Your task to perform on an android device: turn off picture-in-picture Image 0: 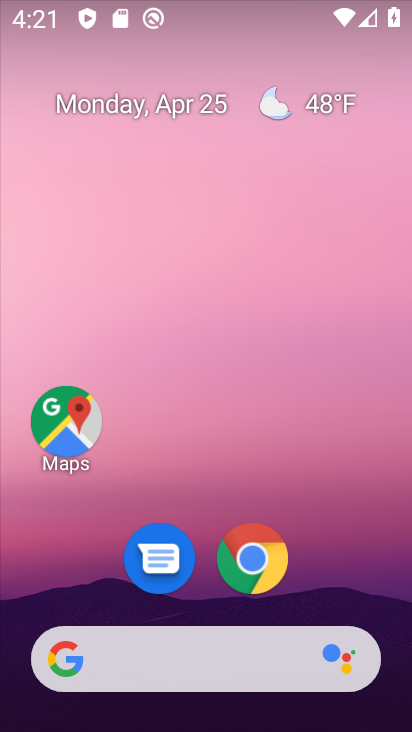
Step 0: drag from (319, 445) to (314, 18)
Your task to perform on an android device: turn off picture-in-picture Image 1: 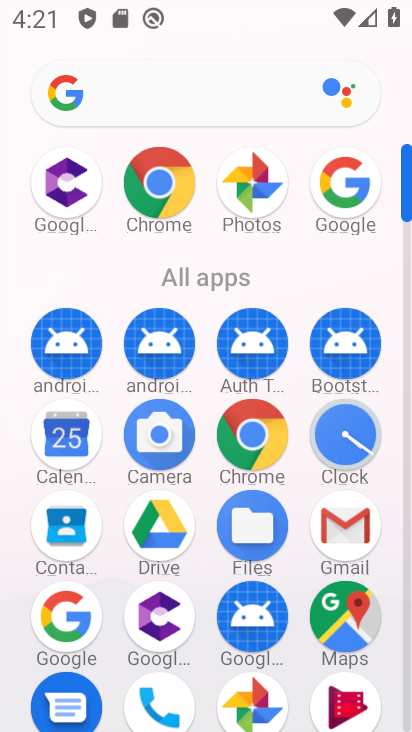
Step 1: click (140, 172)
Your task to perform on an android device: turn off picture-in-picture Image 2: 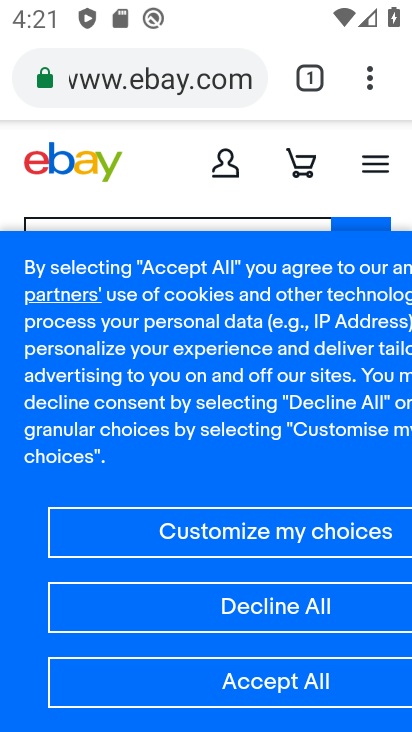
Step 2: press home button
Your task to perform on an android device: turn off picture-in-picture Image 3: 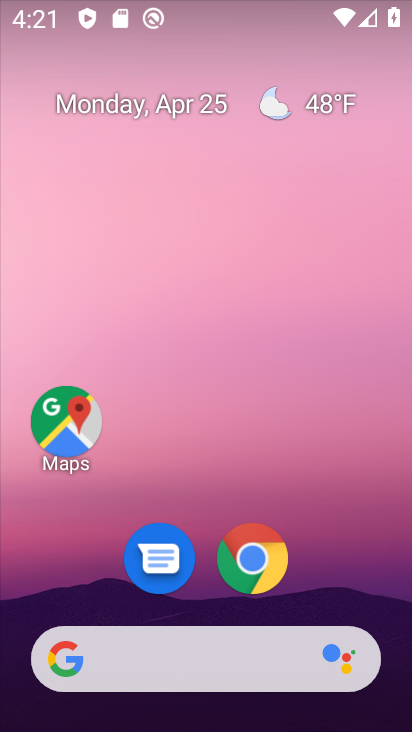
Step 3: drag from (258, 541) to (263, 315)
Your task to perform on an android device: turn off picture-in-picture Image 4: 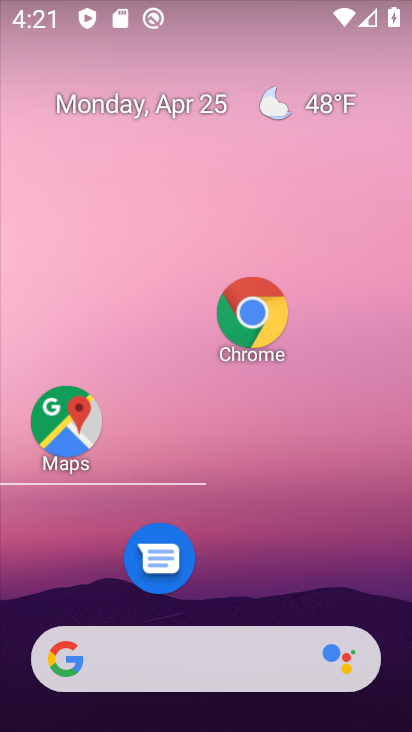
Step 4: click (263, 315)
Your task to perform on an android device: turn off picture-in-picture Image 5: 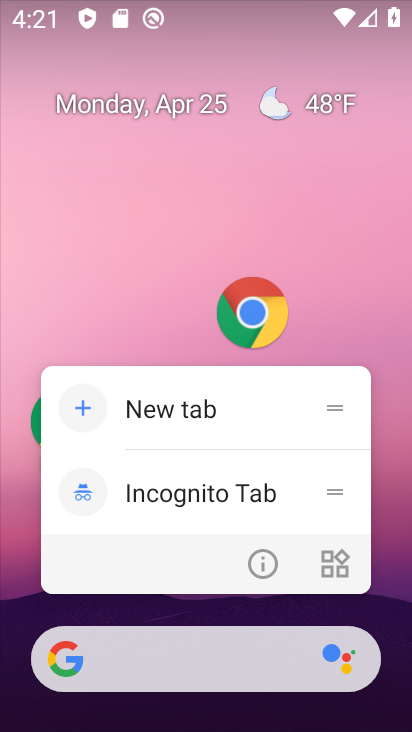
Step 5: click (262, 315)
Your task to perform on an android device: turn off picture-in-picture Image 6: 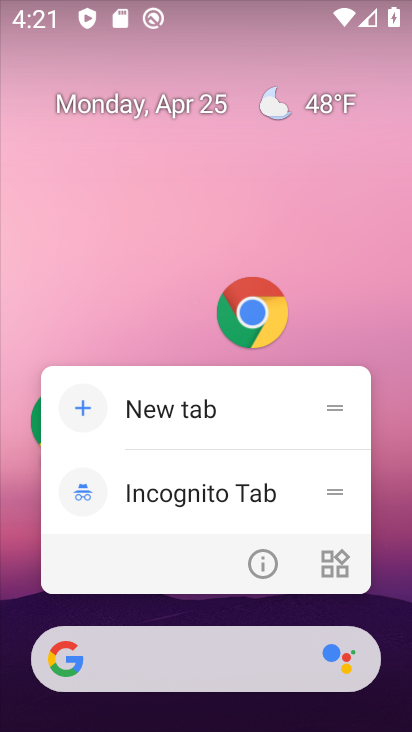
Step 6: click (269, 556)
Your task to perform on an android device: turn off picture-in-picture Image 7: 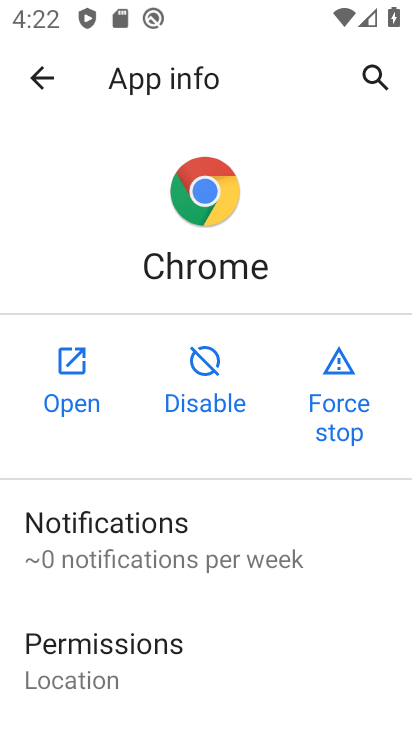
Step 7: drag from (170, 634) to (207, 142)
Your task to perform on an android device: turn off picture-in-picture Image 8: 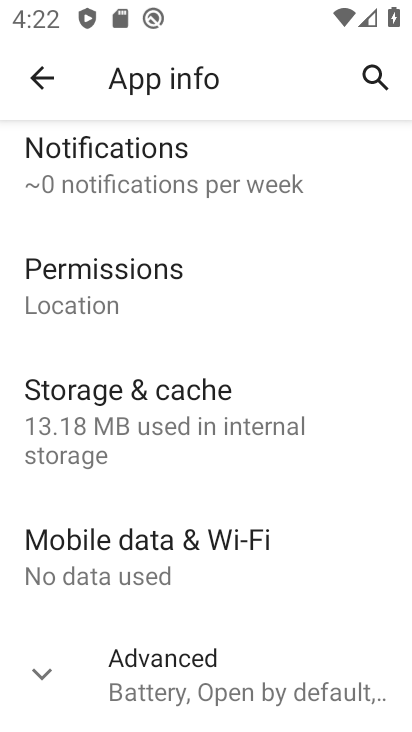
Step 8: drag from (247, 629) to (288, 220)
Your task to perform on an android device: turn off picture-in-picture Image 9: 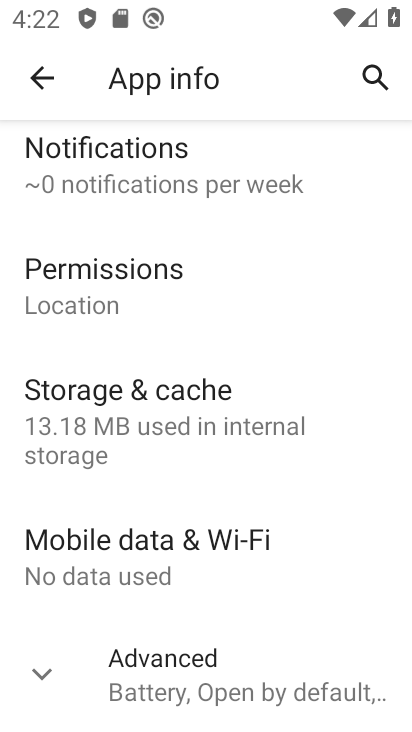
Step 9: click (205, 671)
Your task to perform on an android device: turn off picture-in-picture Image 10: 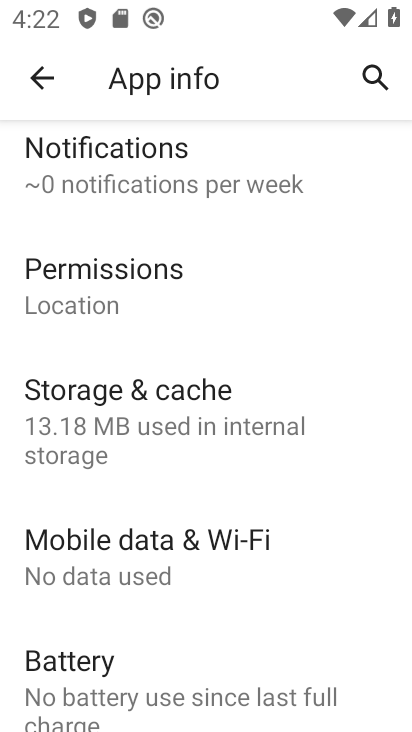
Step 10: drag from (205, 671) to (210, 199)
Your task to perform on an android device: turn off picture-in-picture Image 11: 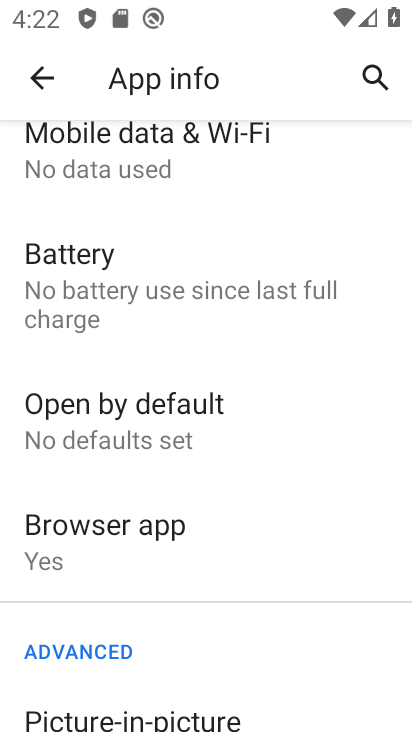
Step 11: drag from (247, 621) to (287, 148)
Your task to perform on an android device: turn off picture-in-picture Image 12: 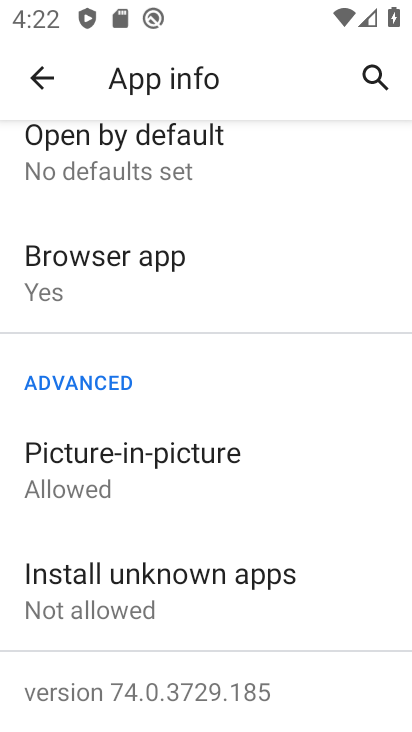
Step 12: click (167, 454)
Your task to perform on an android device: turn off picture-in-picture Image 13: 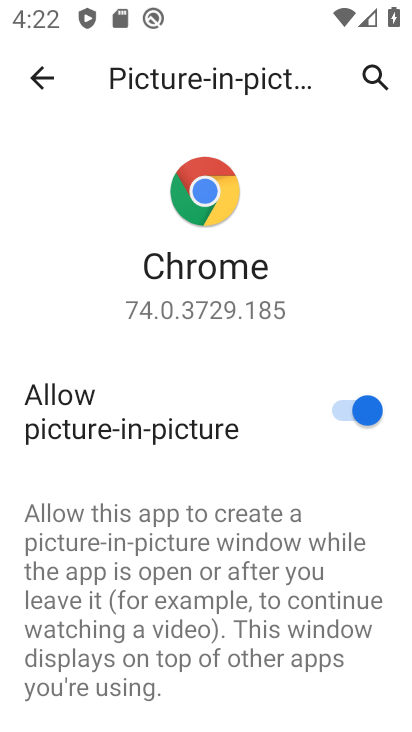
Step 13: click (337, 399)
Your task to perform on an android device: turn off picture-in-picture Image 14: 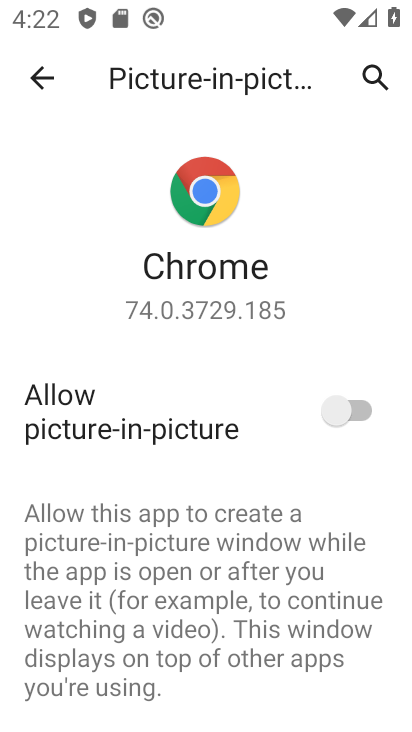
Step 14: task complete